Your task to perform on an android device: toggle improve location accuracy Image 0: 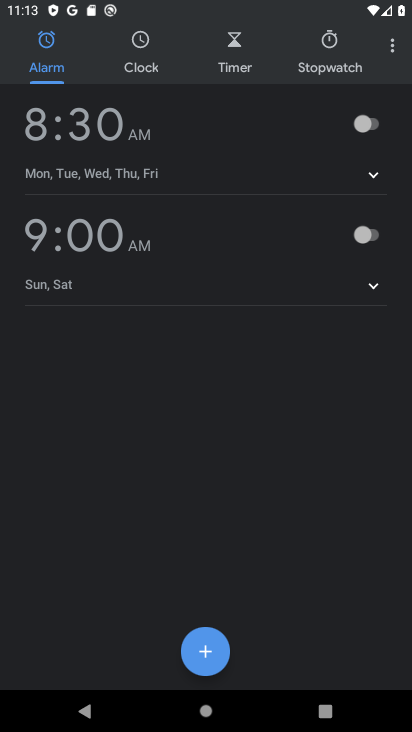
Step 0: press home button
Your task to perform on an android device: toggle improve location accuracy Image 1: 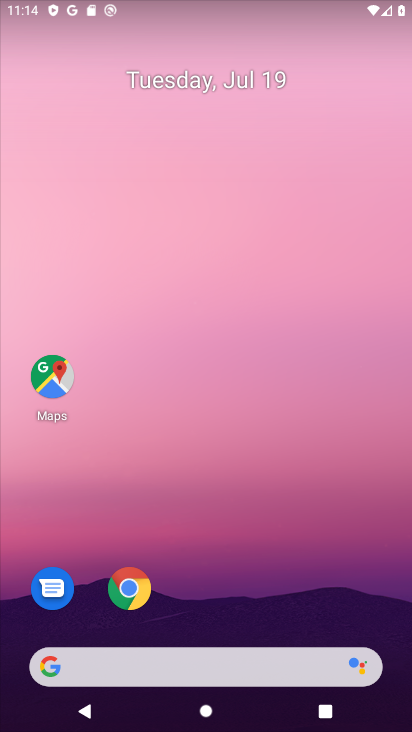
Step 1: drag from (248, 561) to (248, 215)
Your task to perform on an android device: toggle improve location accuracy Image 2: 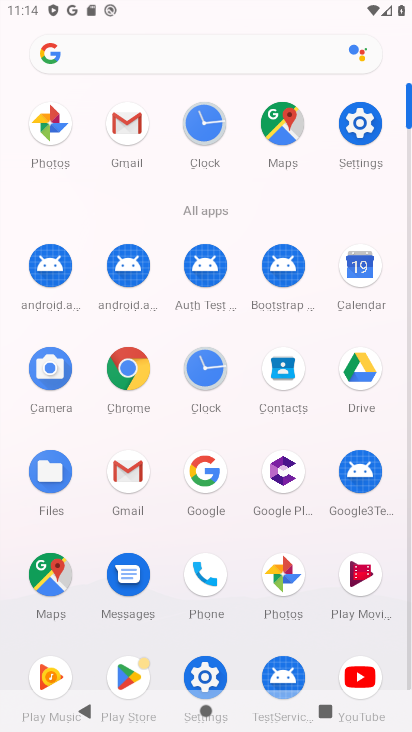
Step 2: click (353, 123)
Your task to perform on an android device: toggle improve location accuracy Image 3: 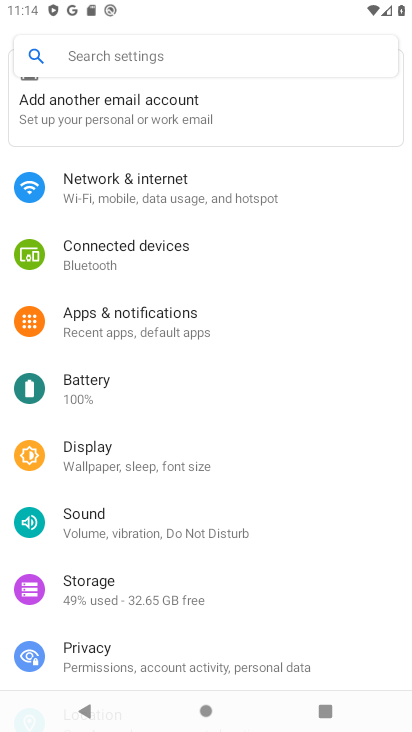
Step 3: drag from (114, 549) to (114, 371)
Your task to perform on an android device: toggle improve location accuracy Image 4: 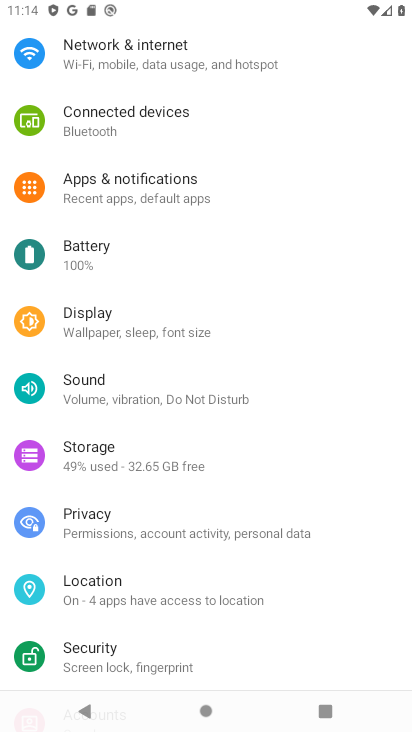
Step 4: click (92, 583)
Your task to perform on an android device: toggle improve location accuracy Image 5: 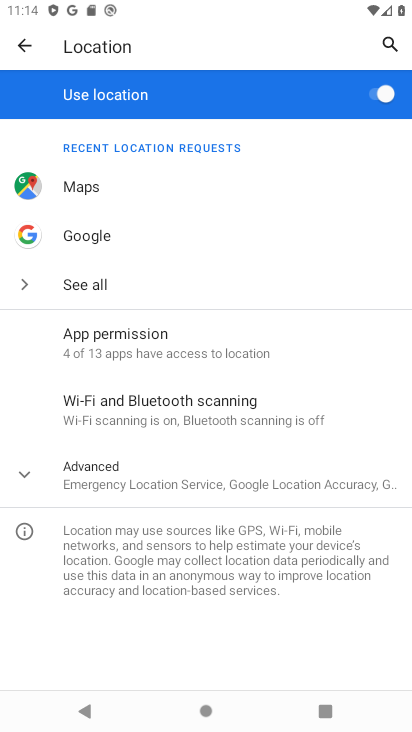
Step 5: click (111, 474)
Your task to perform on an android device: toggle improve location accuracy Image 6: 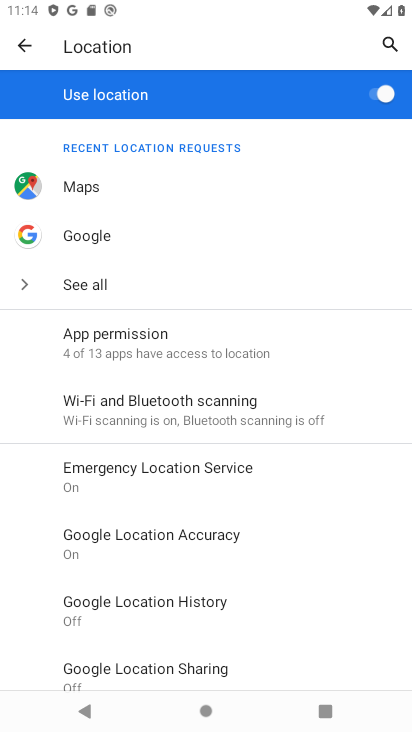
Step 6: click (165, 536)
Your task to perform on an android device: toggle improve location accuracy Image 7: 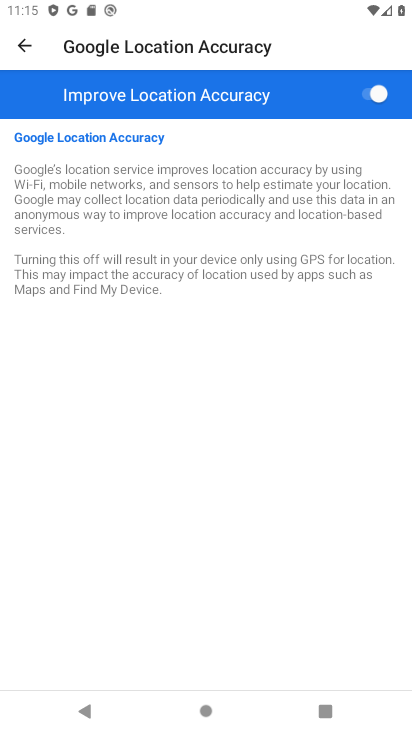
Step 7: click (376, 100)
Your task to perform on an android device: toggle improve location accuracy Image 8: 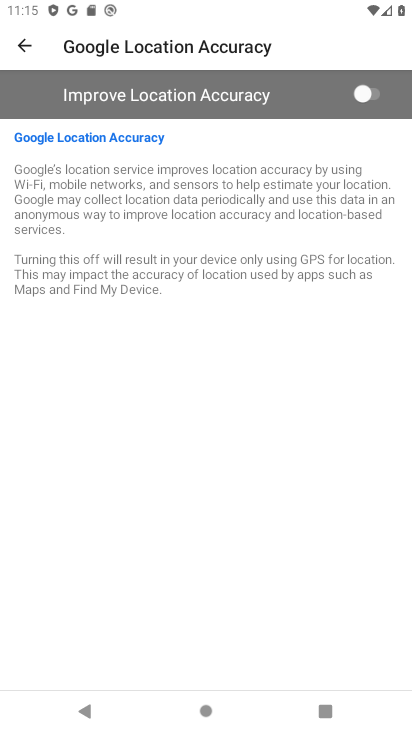
Step 8: task complete